Your task to perform on an android device: move a message to another label in the gmail app Image 0: 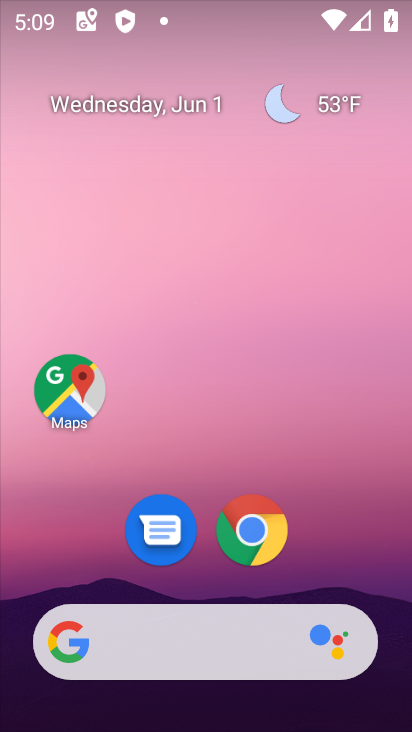
Step 0: drag from (282, 580) to (282, 106)
Your task to perform on an android device: move a message to another label in the gmail app Image 1: 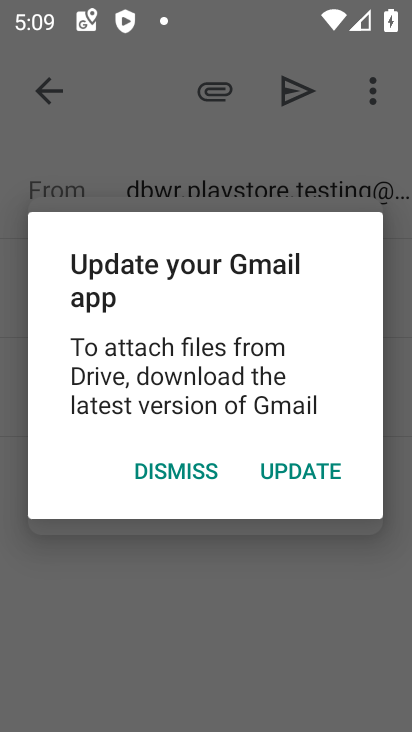
Step 1: click (344, 506)
Your task to perform on an android device: move a message to another label in the gmail app Image 2: 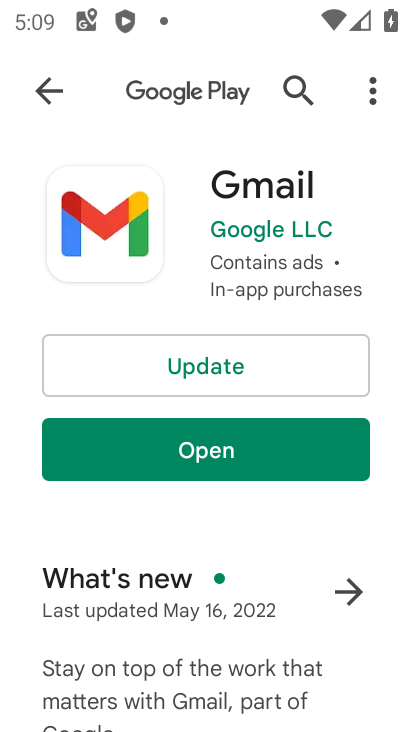
Step 2: click (214, 453)
Your task to perform on an android device: move a message to another label in the gmail app Image 3: 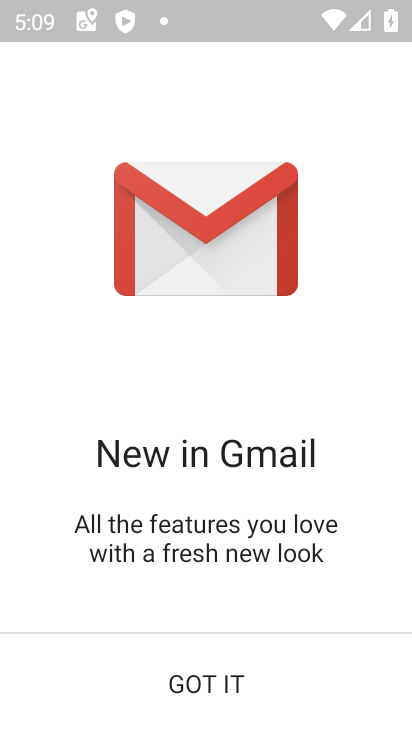
Step 3: click (204, 676)
Your task to perform on an android device: move a message to another label in the gmail app Image 4: 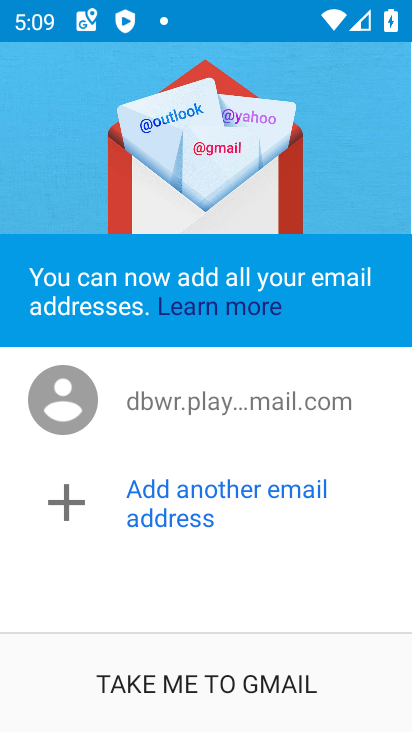
Step 4: click (203, 673)
Your task to perform on an android device: move a message to another label in the gmail app Image 5: 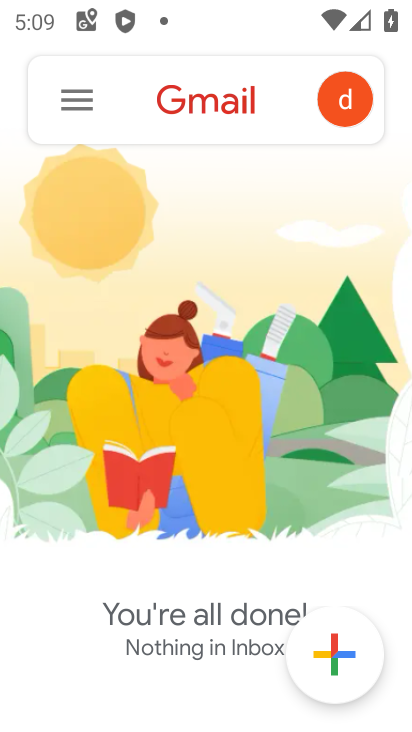
Step 5: click (62, 95)
Your task to perform on an android device: move a message to another label in the gmail app Image 6: 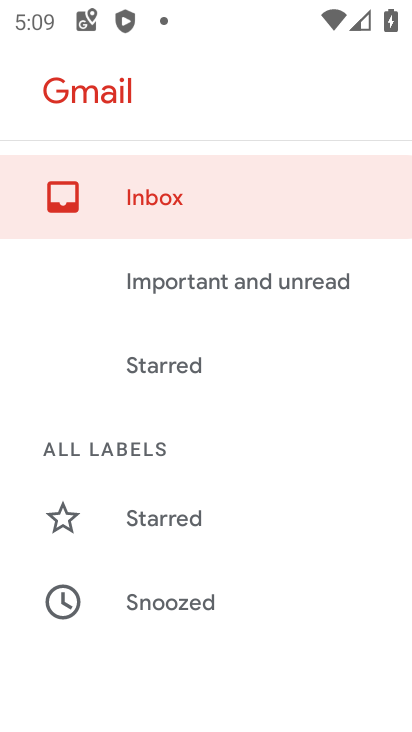
Step 6: drag from (206, 589) to (220, 319)
Your task to perform on an android device: move a message to another label in the gmail app Image 7: 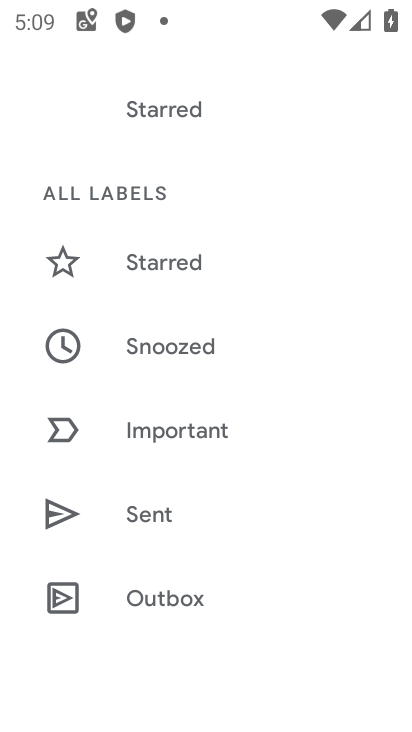
Step 7: drag from (189, 608) to (209, 412)
Your task to perform on an android device: move a message to another label in the gmail app Image 8: 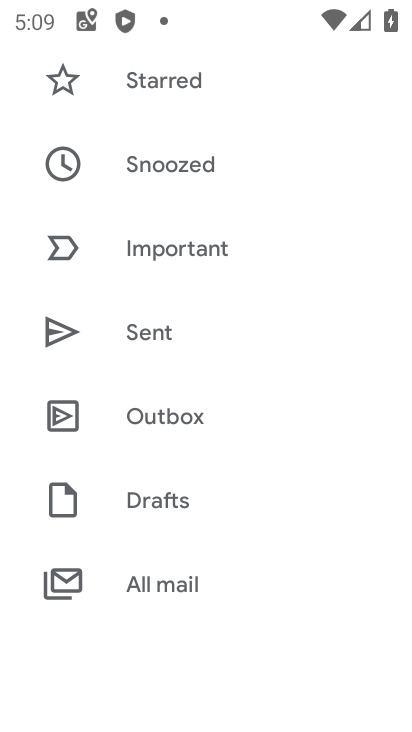
Step 8: click (158, 585)
Your task to perform on an android device: move a message to another label in the gmail app Image 9: 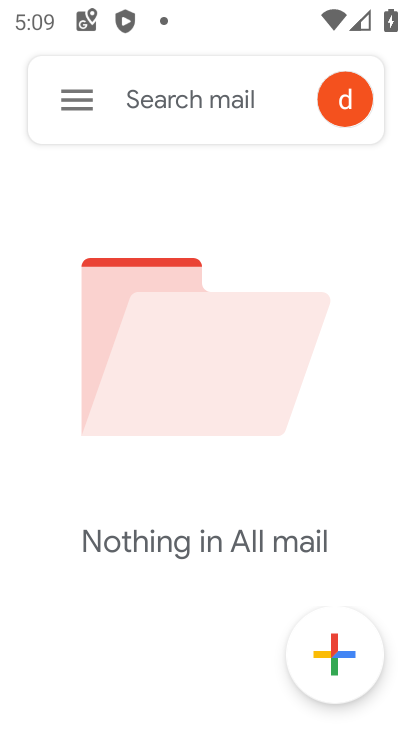
Step 9: task complete